Your task to perform on an android device: change keyboard looks Image 0: 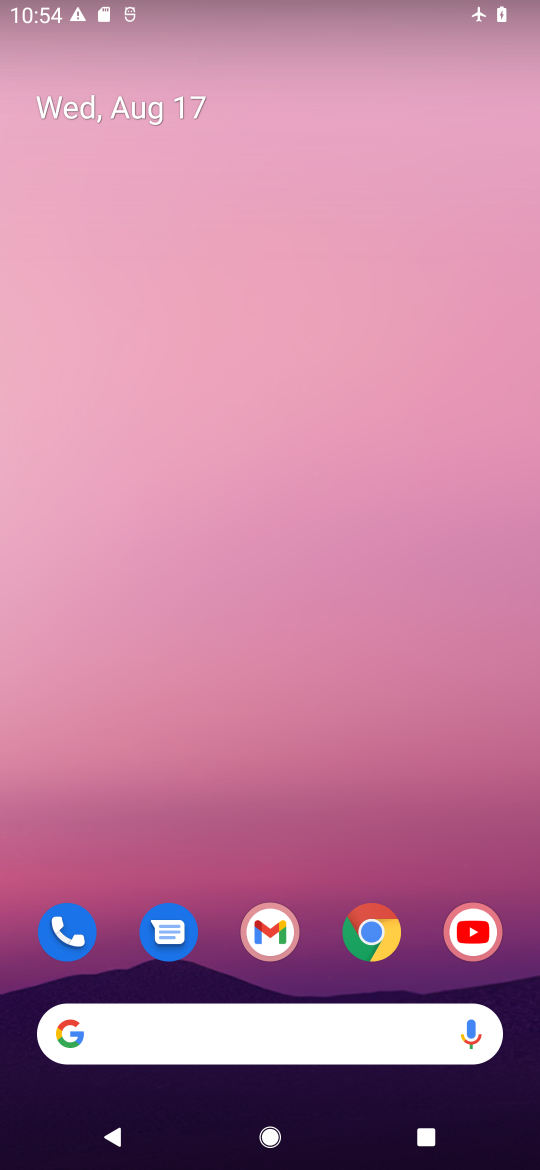
Step 0: drag from (303, 853) to (334, 203)
Your task to perform on an android device: change keyboard looks Image 1: 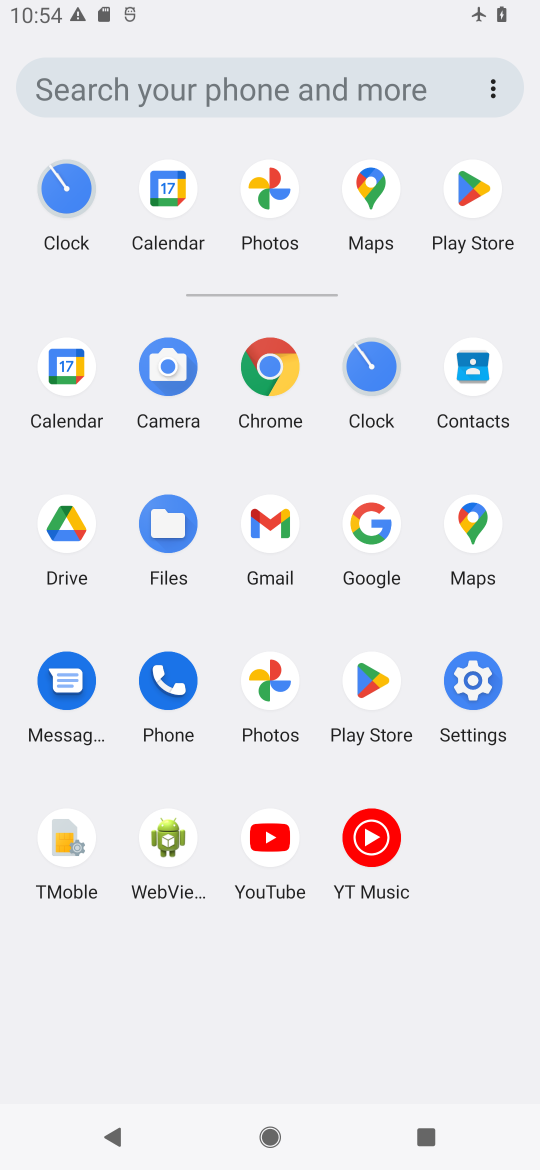
Step 1: click (455, 697)
Your task to perform on an android device: change keyboard looks Image 2: 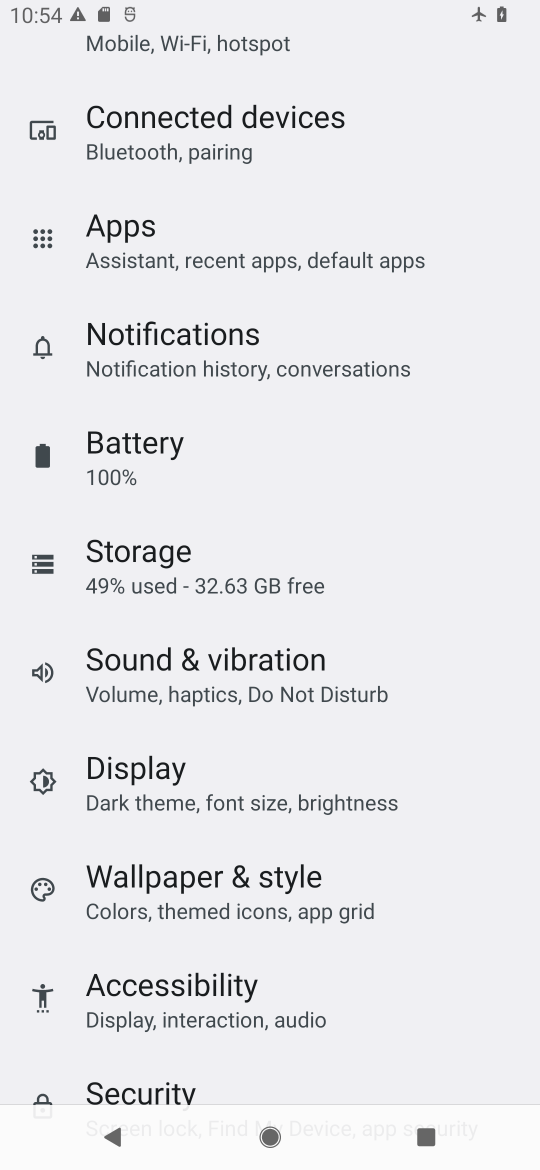
Step 2: drag from (194, 1008) to (209, 539)
Your task to perform on an android device: change keyboard looks Image 3: 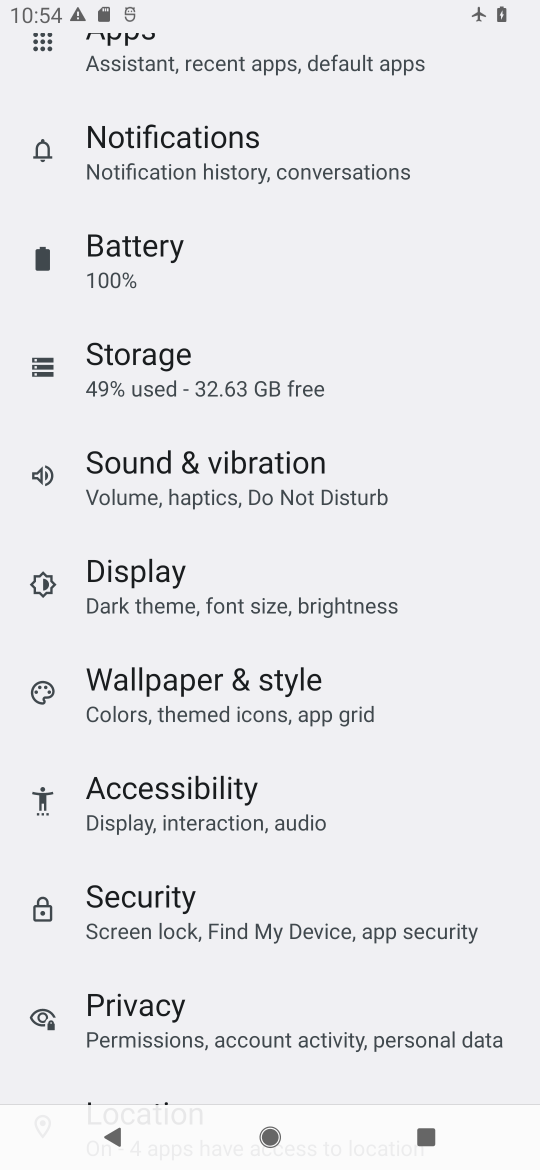
Step 3: drag from (240, 921) to (306, 319)
Your task to perform on an android device: change keyboard looks Image 4: 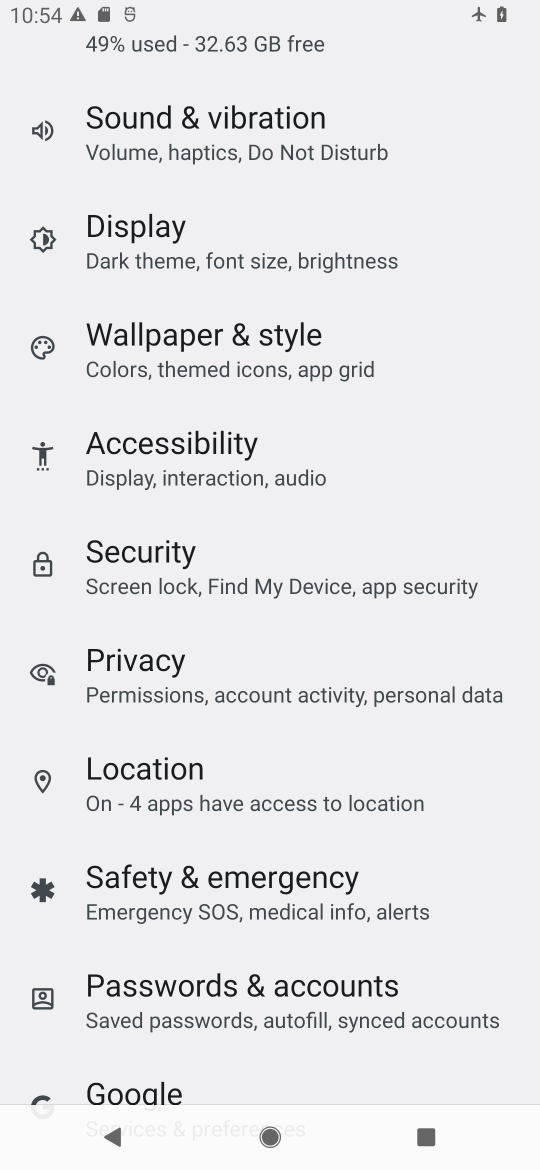
Step 4: drag from (273, 925) to (278, 419)
Your task to perform on an android device: change keyboard looks Image 5: 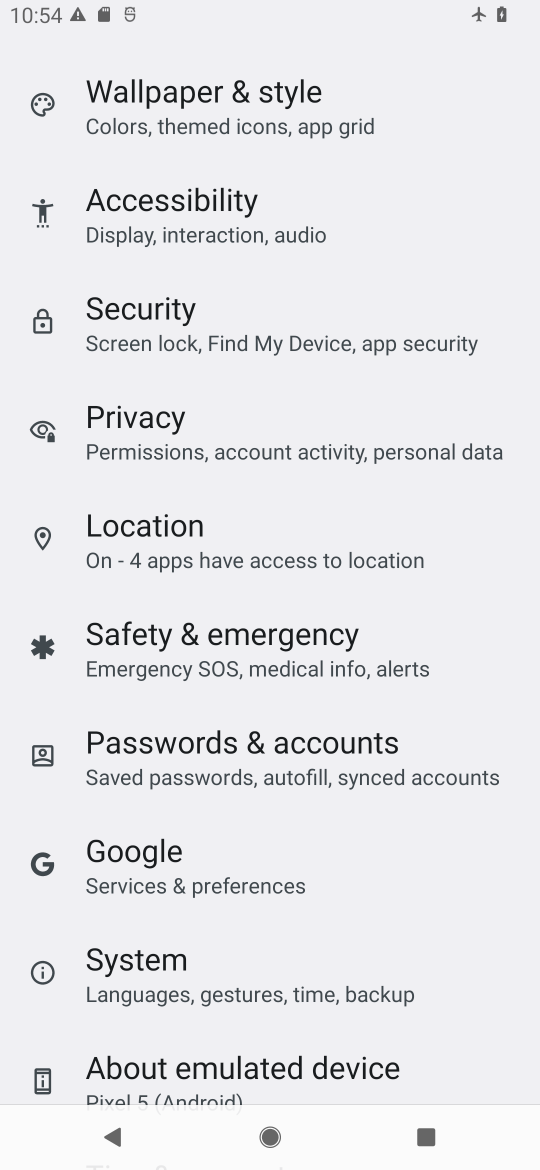
Step 5: click (135, 988)
Your task to perform on an android device: change keyboard looks Image 6: 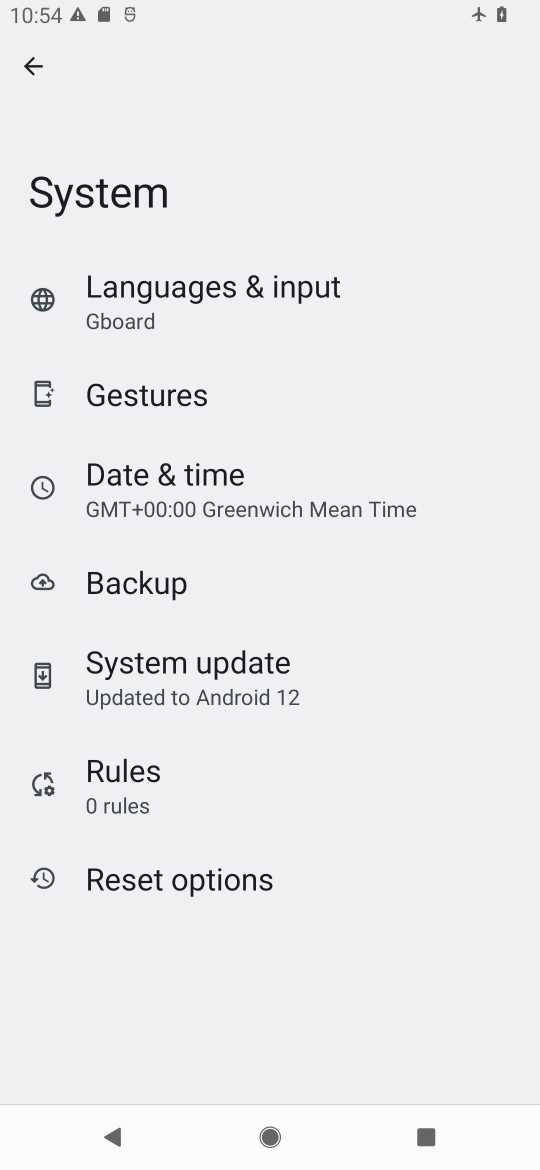
Step 6: click (275, 306)
Your task to perform on an android device: change keyboard looks Image 7: 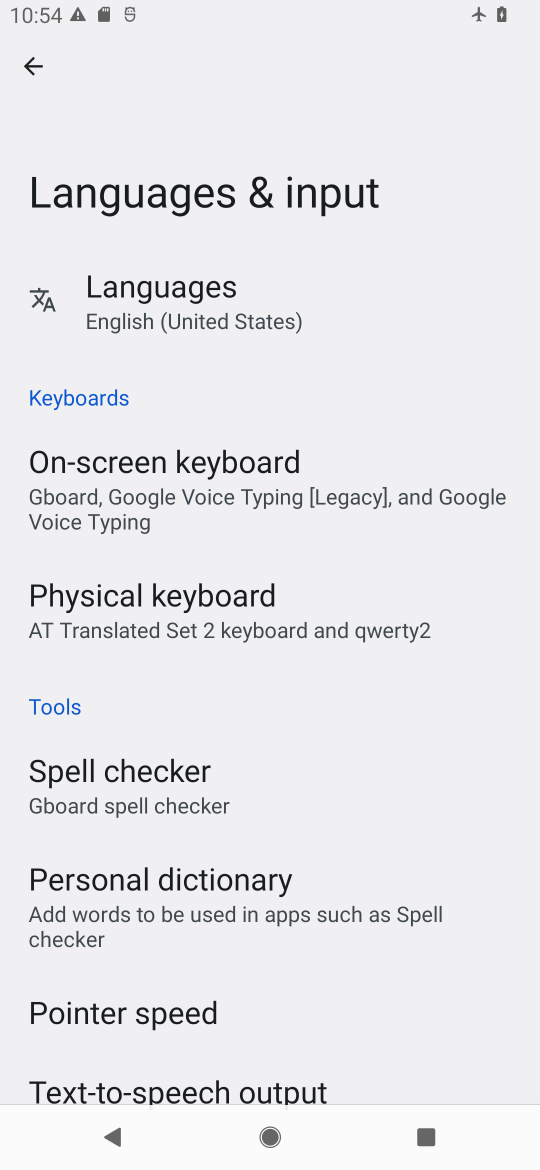
Step 7: click (237, 462)
Your task to perform on an android device: change keyboard looks Image 8: 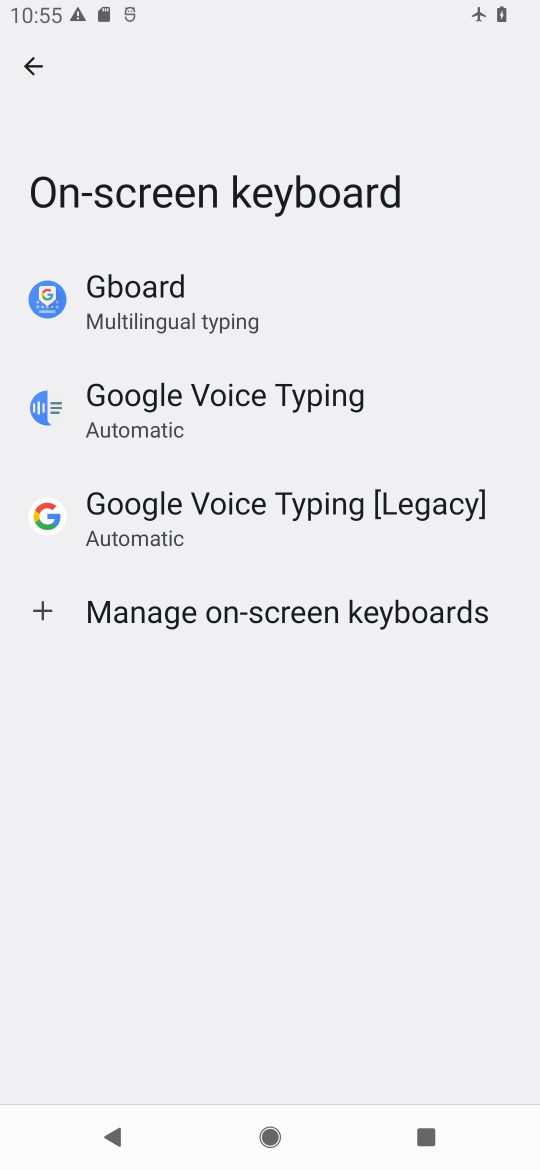
Step 8: click (158, 314)
Your task to perform on an android device: change keyboard looks Image 9: 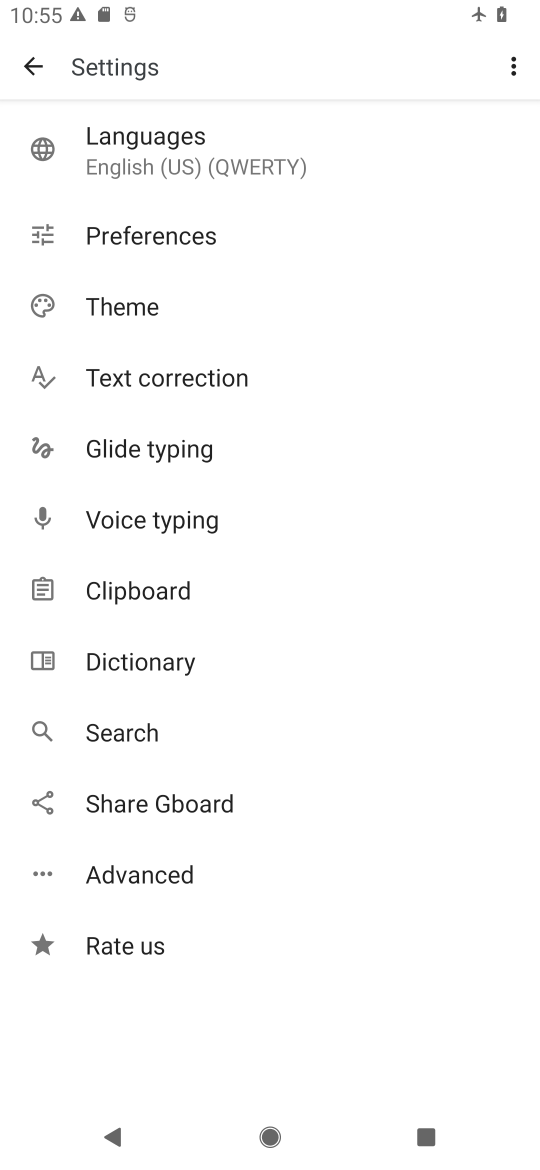
Step 9: click (158, 314)
Your task to perform on an android device: change keyboard looks Image 10: 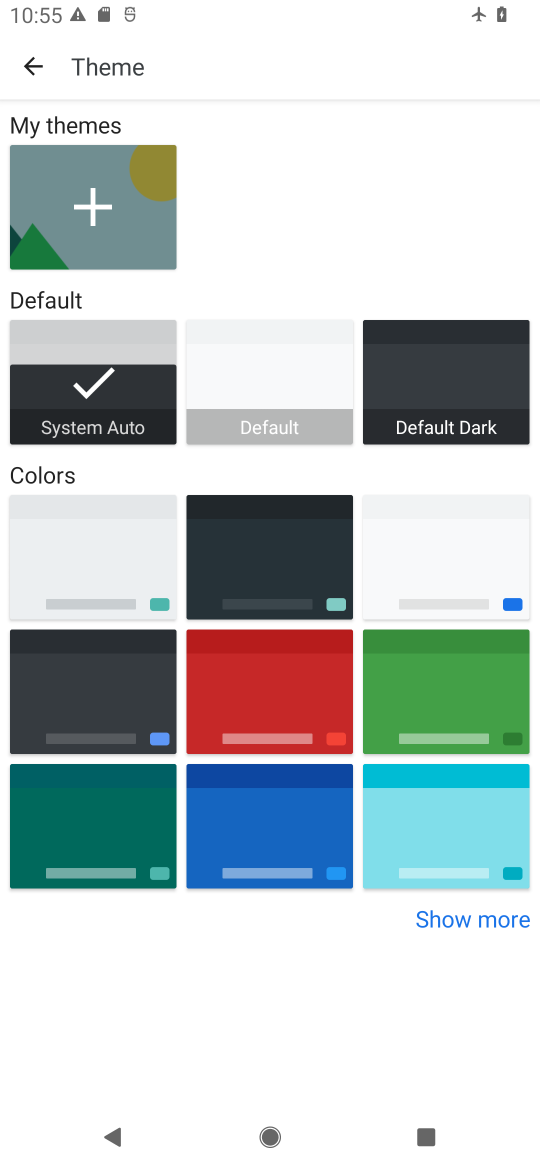
Step 10: click (393, 687)
Your task to perform on an android device: change keyboard looks Image 11: 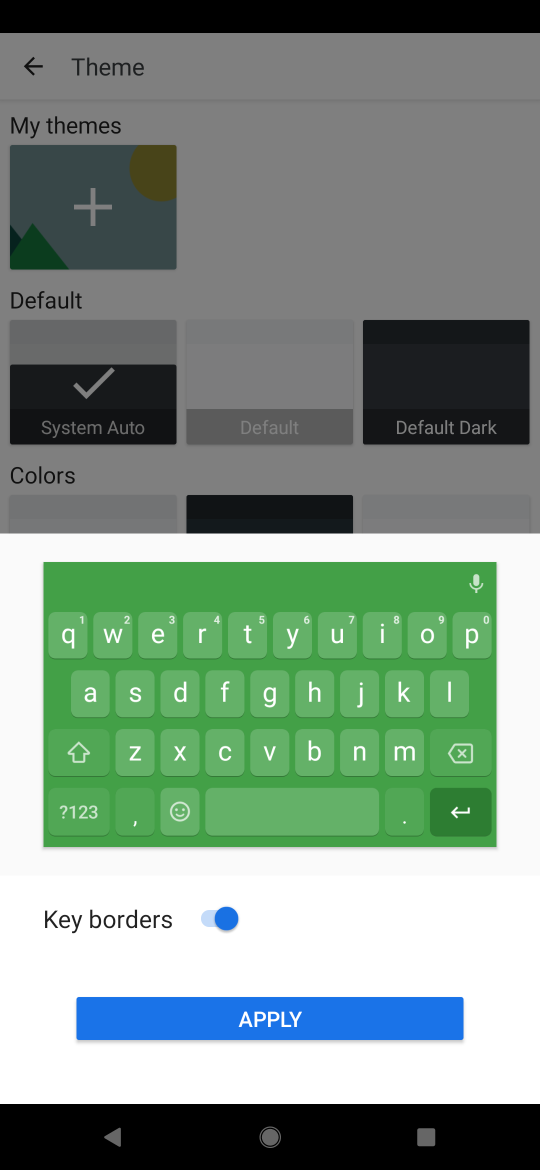
Step 11: click (294, 1007)
Your task to perform on an android device: change keyboard looks Image 12: 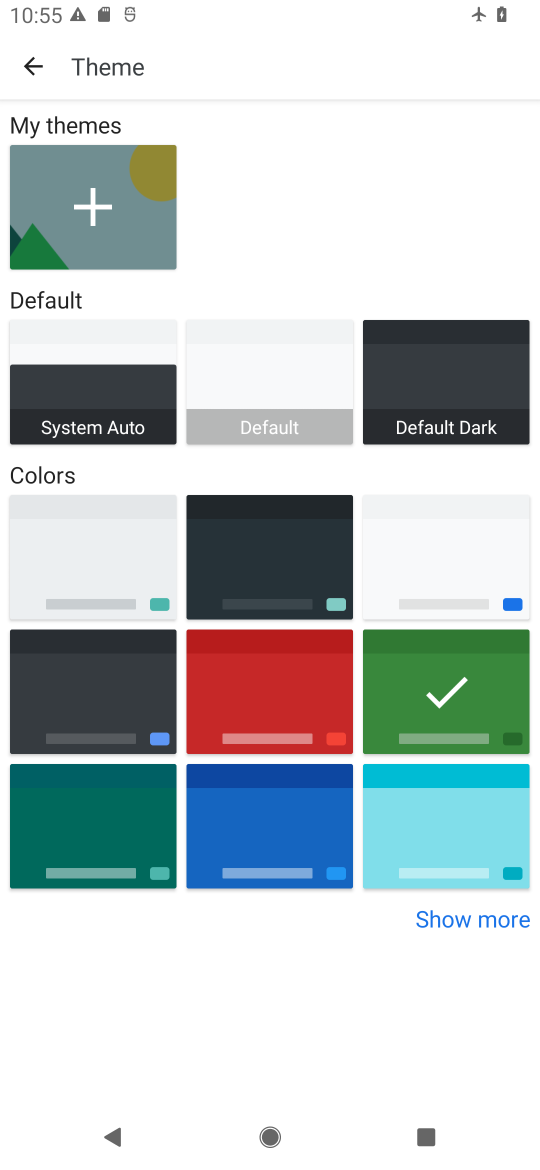
Step 12: task complete